Your task to perform on an android device: Go to Amazon Image 0: 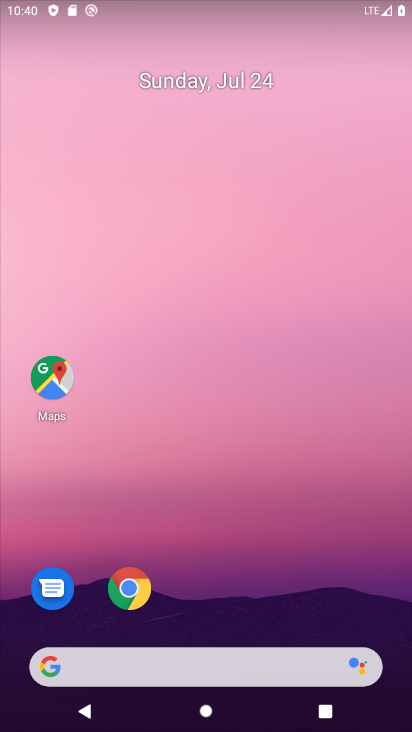
Step 0: click (127, 593)
Your task to perform on an android device: Go to Amazon Image 1: 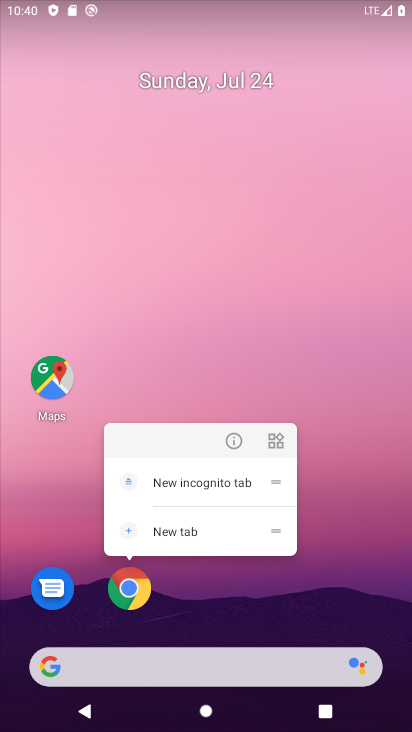
Step 1: click (136, 589)
Your task to perform on an android device: Go to Amazon Image 2: 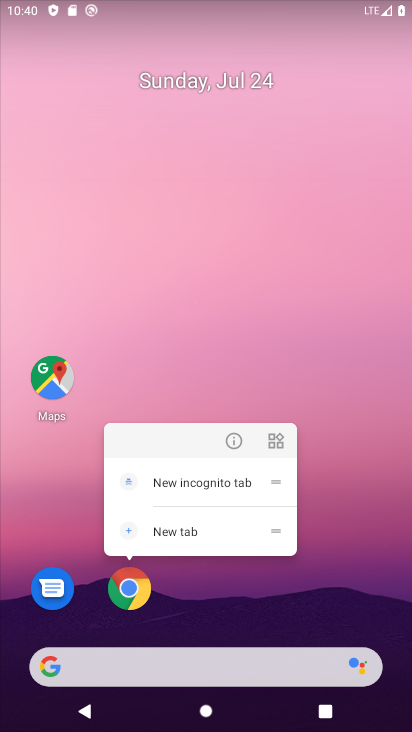
Step 2: click (132, 589)
Your task to perform on an android device: Go to Amazon Image 3: 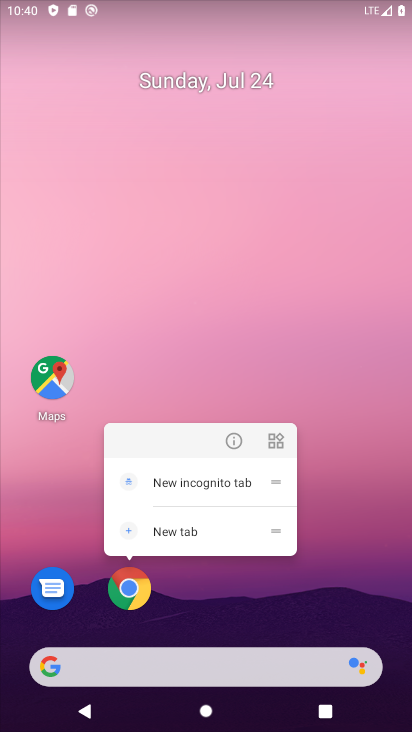
Step 3: click (132, 589)
Your task to perform on an android device: Go to Amazon Image 4: 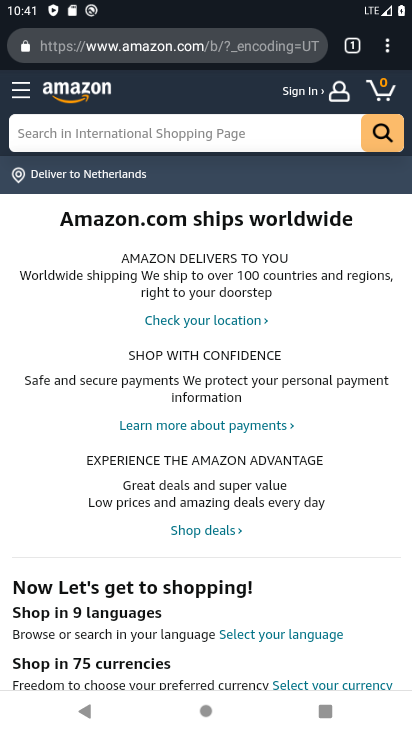
Step 4: task complete